Your task to perform on an android device: Add logitech g pro to the cart on ebay, then select checkout. Image 0: 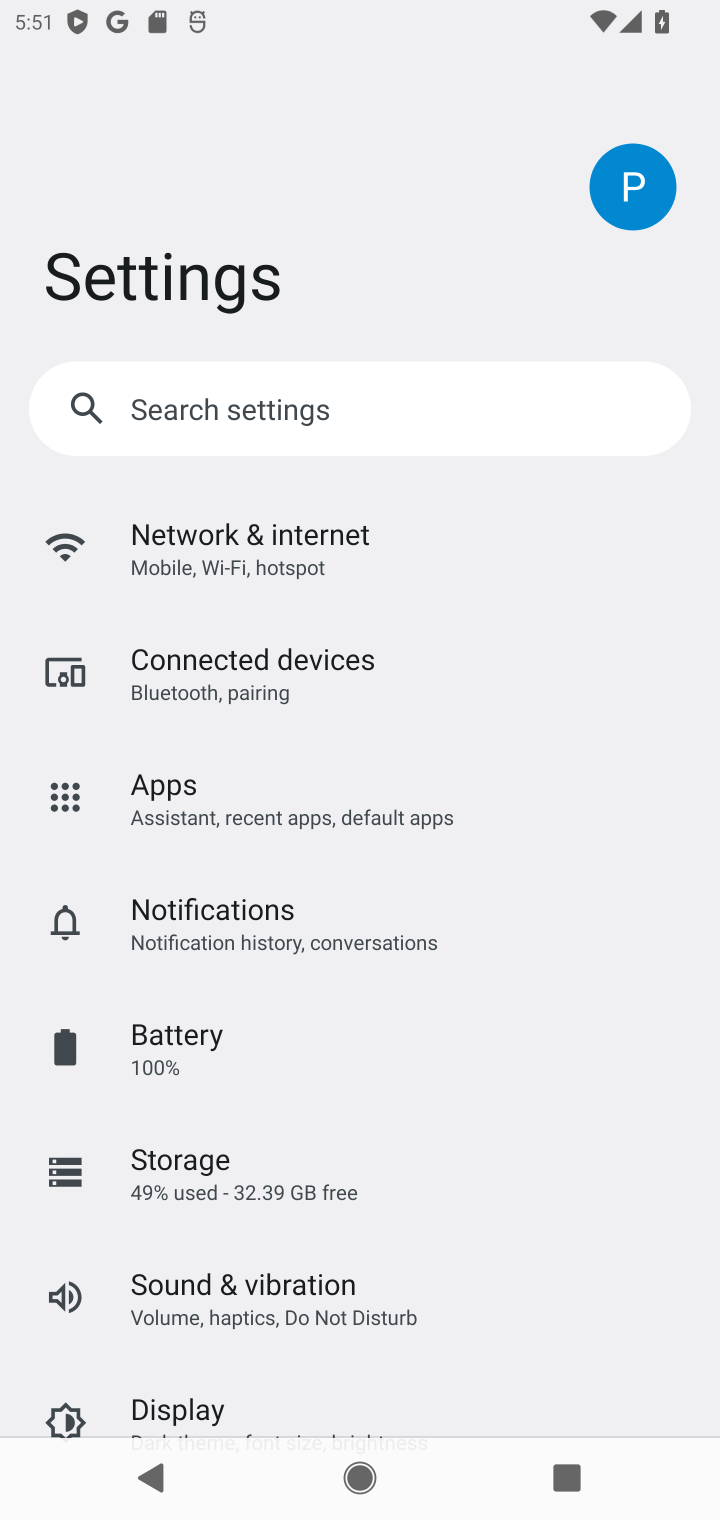
Step 0: press home button
Your task to perform on an android device: Add logitech g pro to the cart on ebay, then select checkout. Image 1: 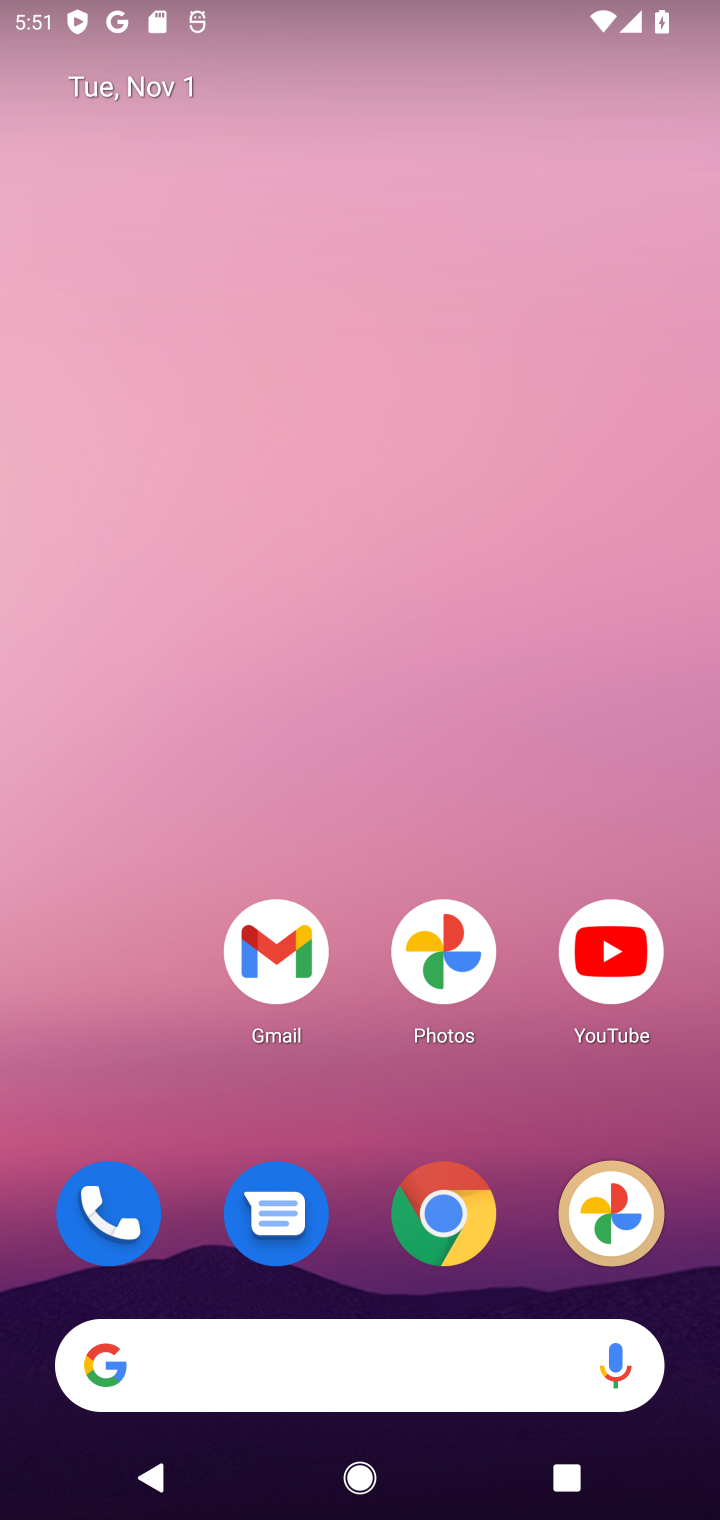
Step 1: click (450, 1223)
Your task to perform on an android device: Add logitech g pro to the cart on ebay, then select checkout. Image 2: 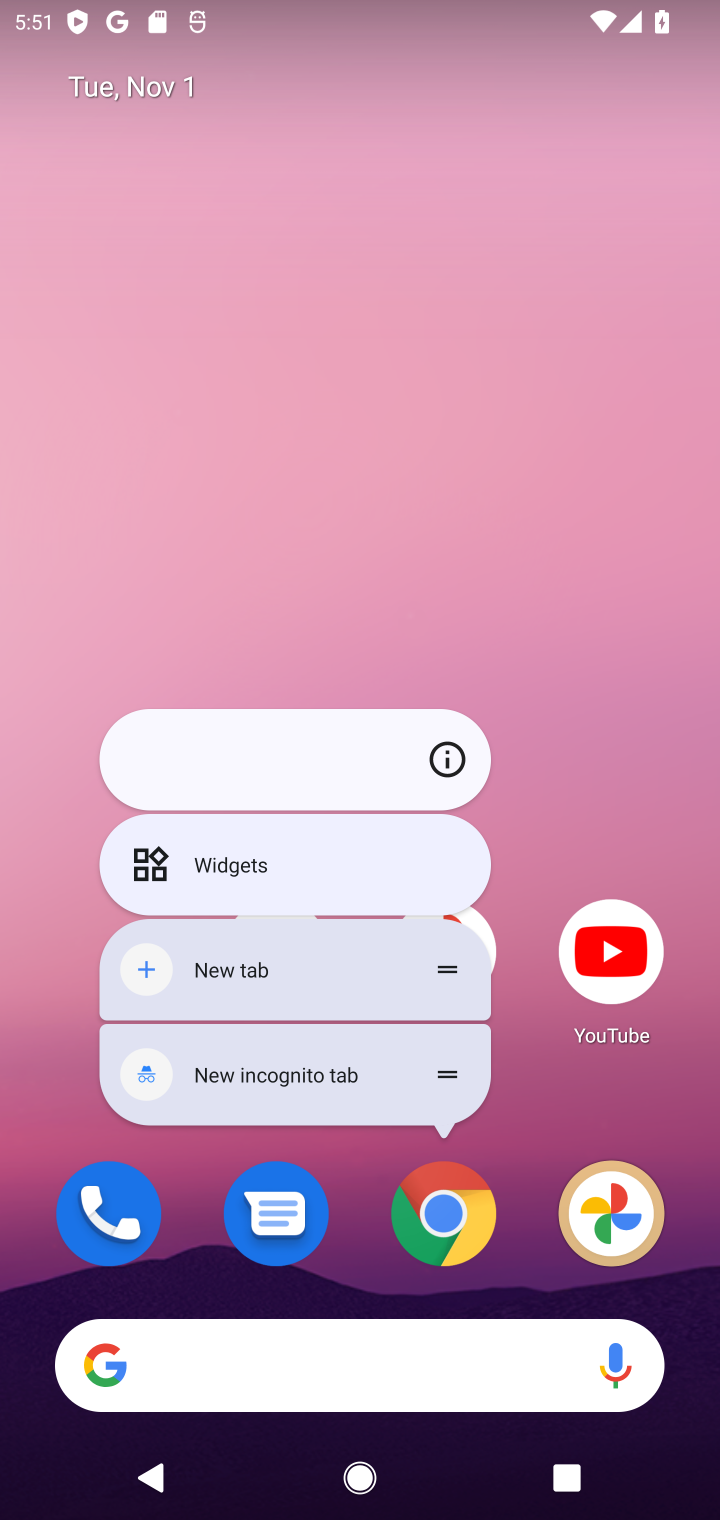
Step 2: click (440, 1249)
Your task to perform on an android device: Add logitech g pro to the cart on ebay, then select checkout. Image 3: 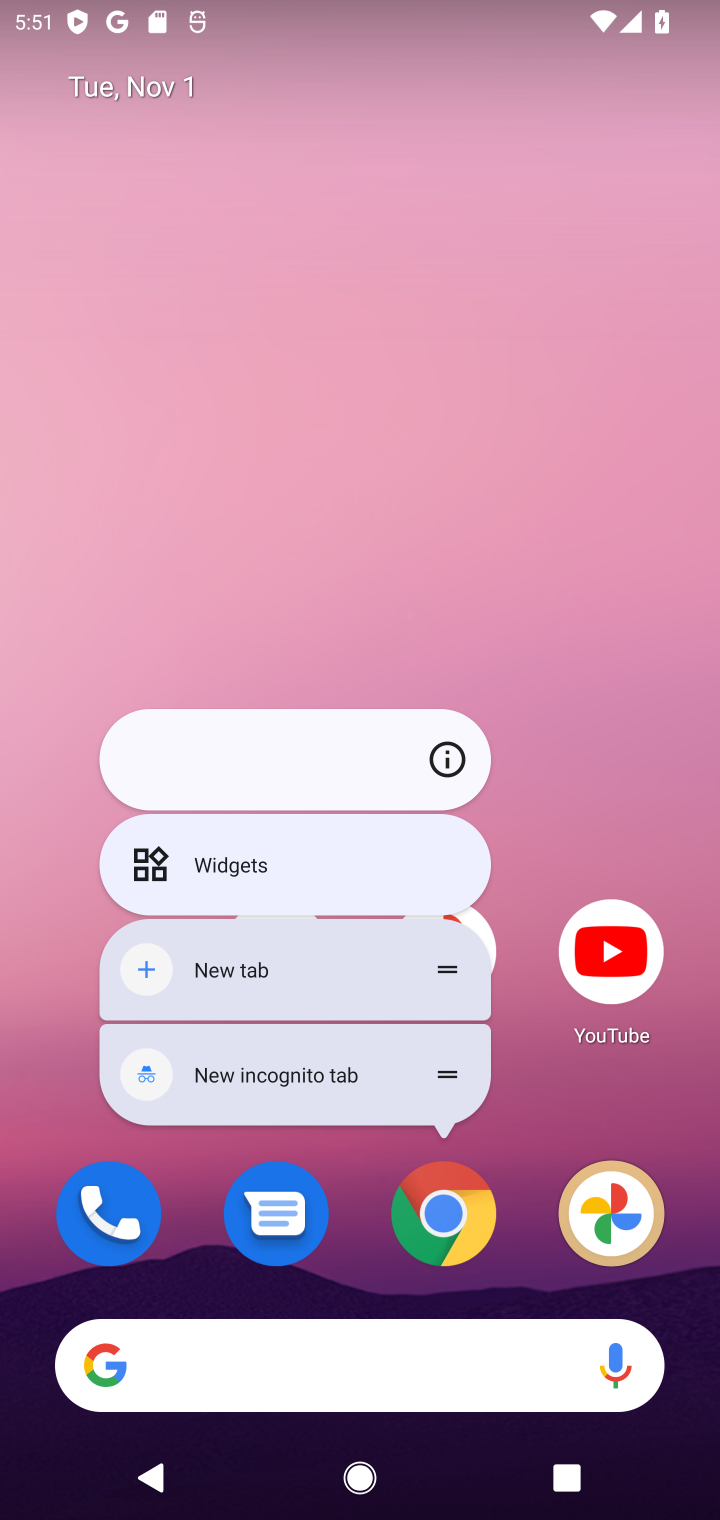
Step 3: click (440, 1256)
Your task to perform on an android device: Add logitech g pro to the cart on ebay, then select checkout. Image 4: 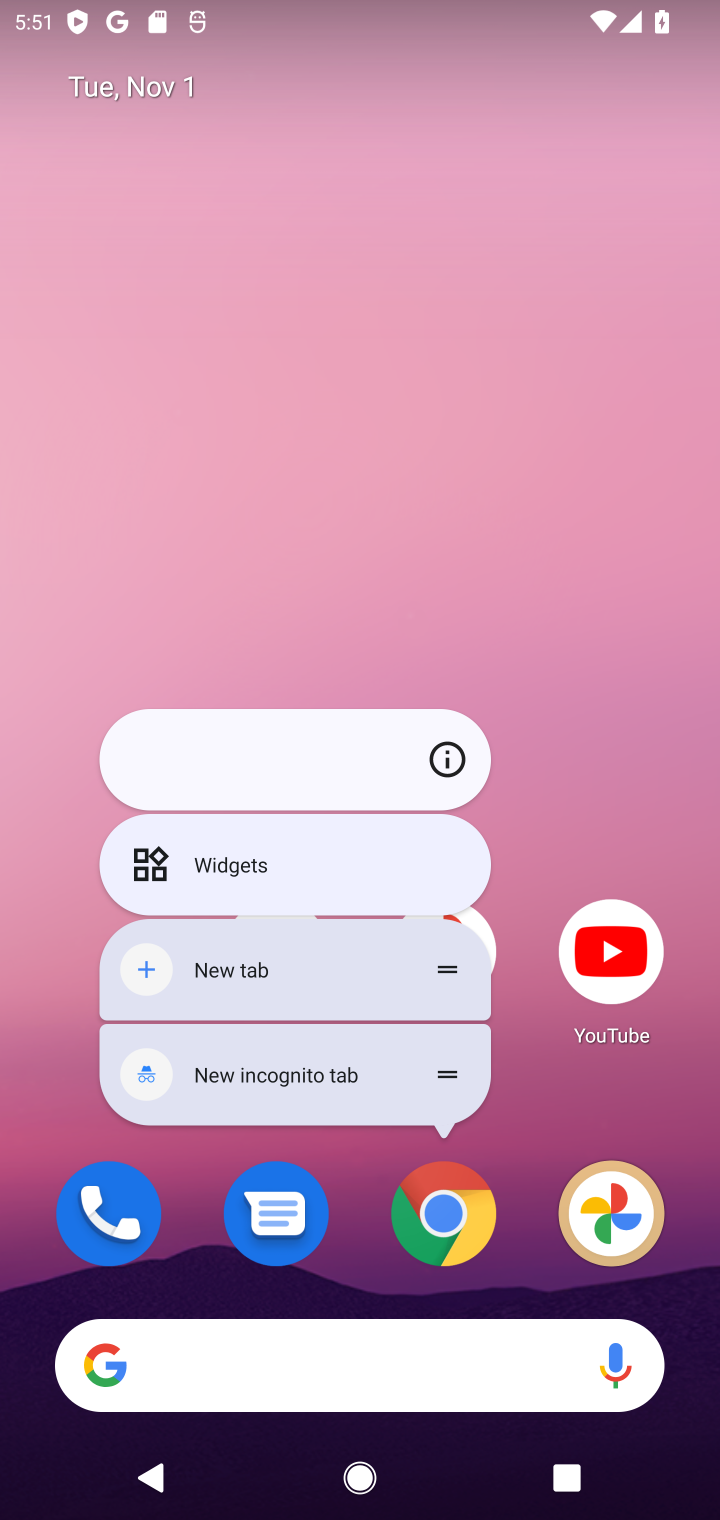
Step 4: click (460, 1248)
Your task to perform on an android device: Add logitech g pro to the cart on ebay, then select checkout. Image 5: 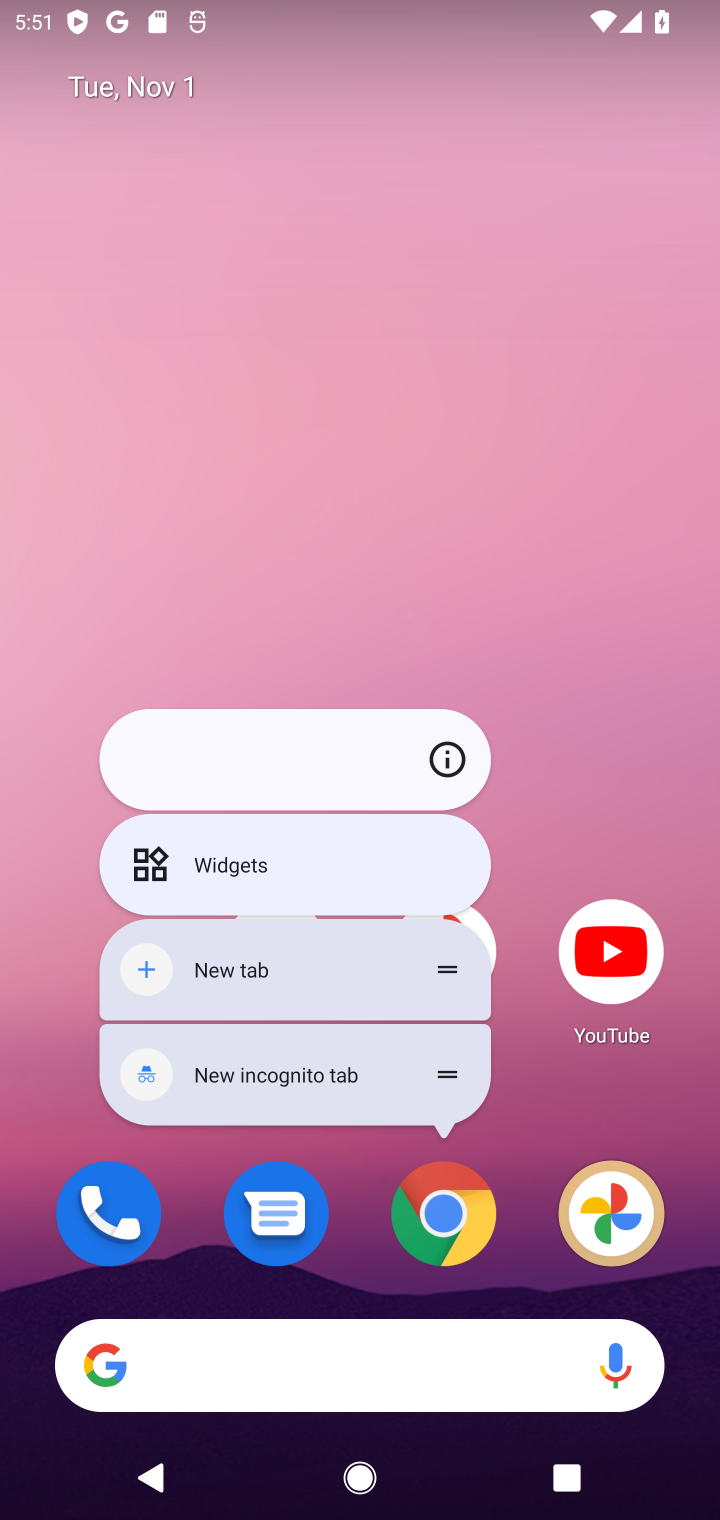
Step 5: click (450, 1256)
Your task to perform on an android device: Add logitech g pro to the cart on ebay, then select checkout. Image 6: 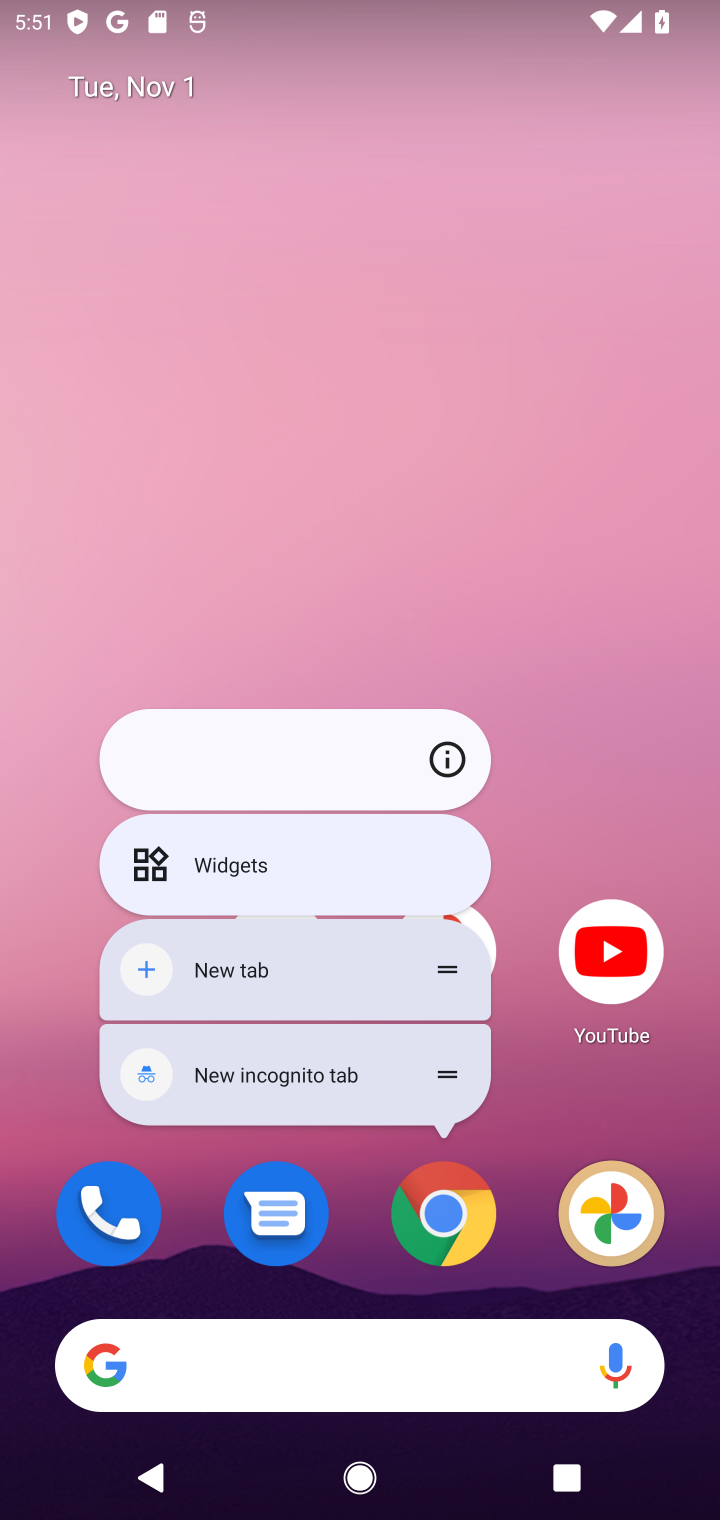
Step 6: click (447, 1225)
Your task to perform on an android device: Add logitech g pro to the cart on ebay, then select checkout. Image 7: 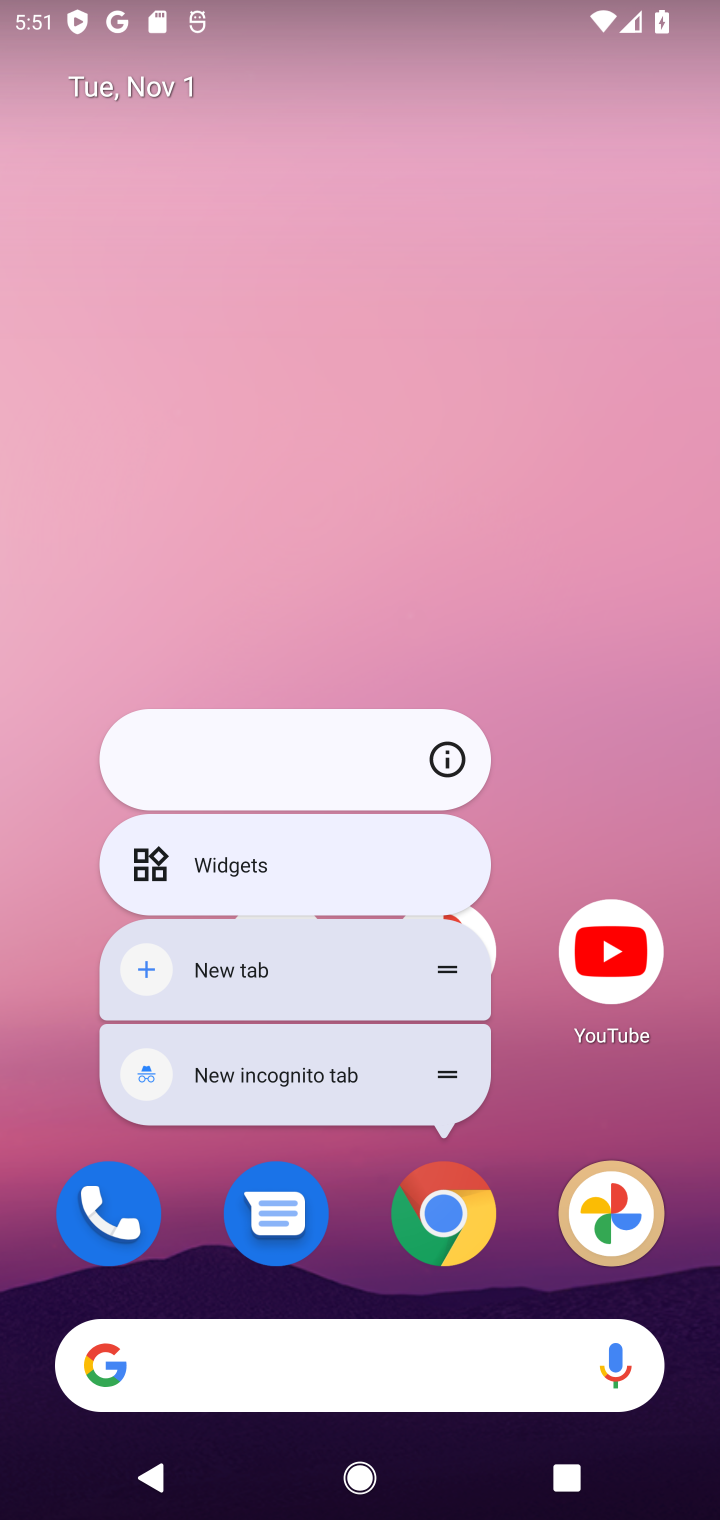
Step 7: click (447, 1217)
Your task to perform on an android device: Add logitech g pro to the cart on ebay, then select checkout. Image 8: 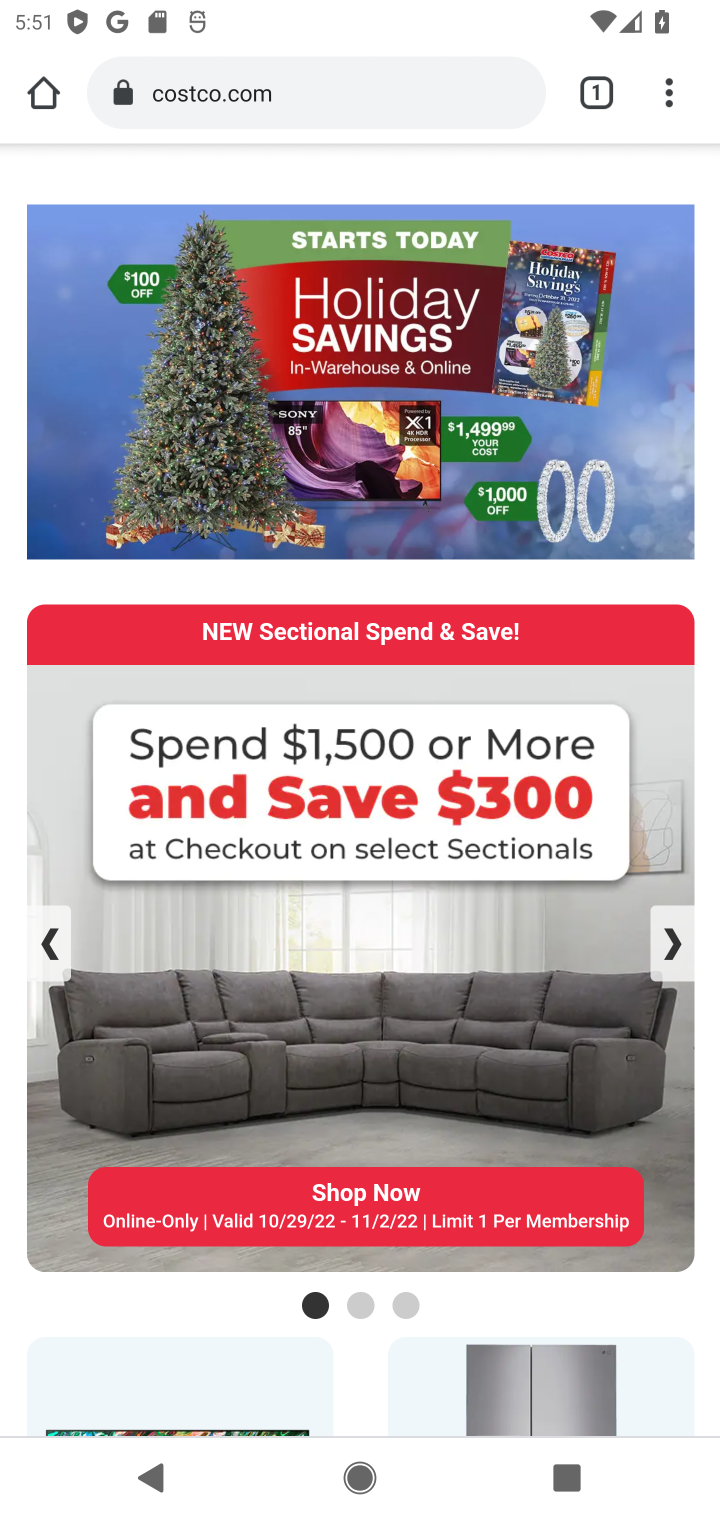
Step 8: click (389, 92)
Your task to perform on an android device: Add logitech g pro to the cart on ebay, then select checkout. Image 9: 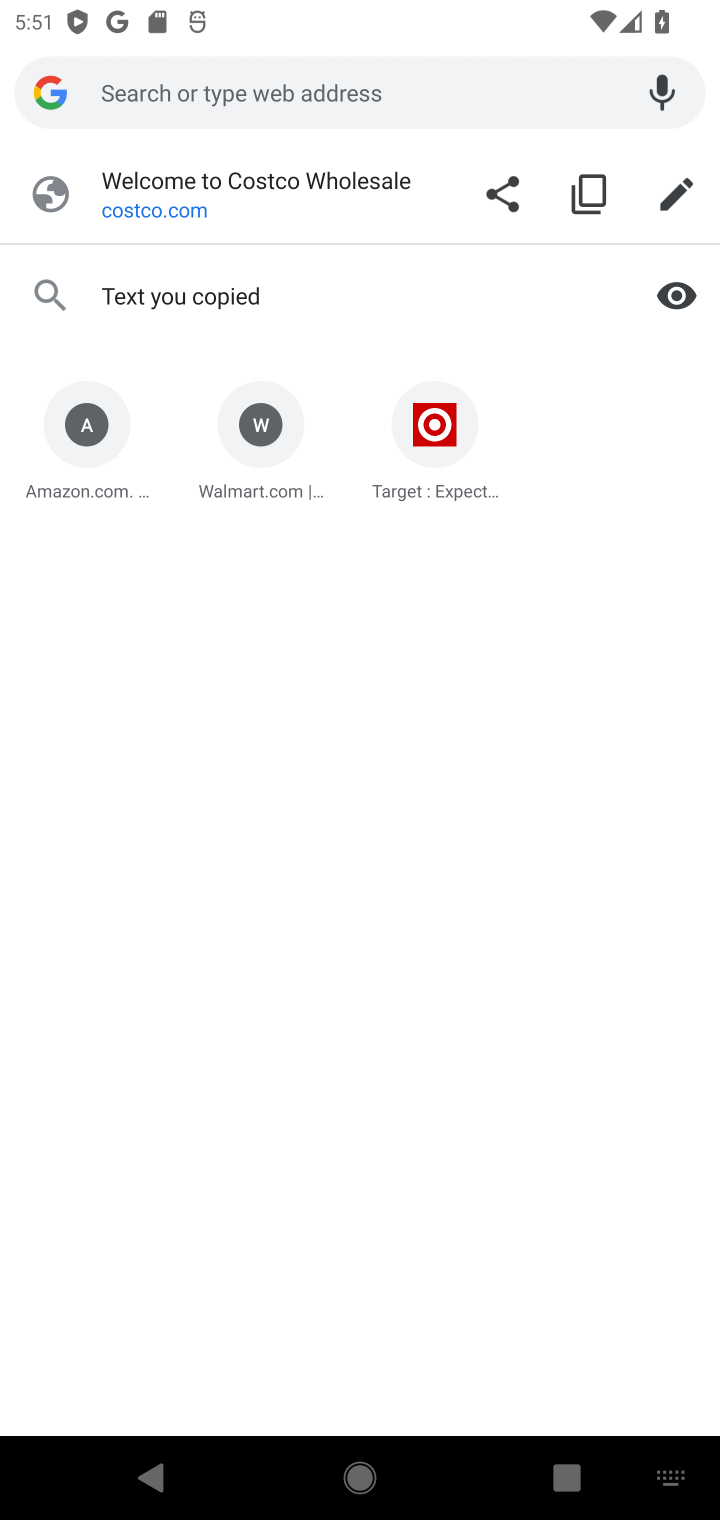
Step 9: type " ebay"
Your task to perform on an android device: Add logitech g pro to the cart on ebay, then select checkout. Image 10: 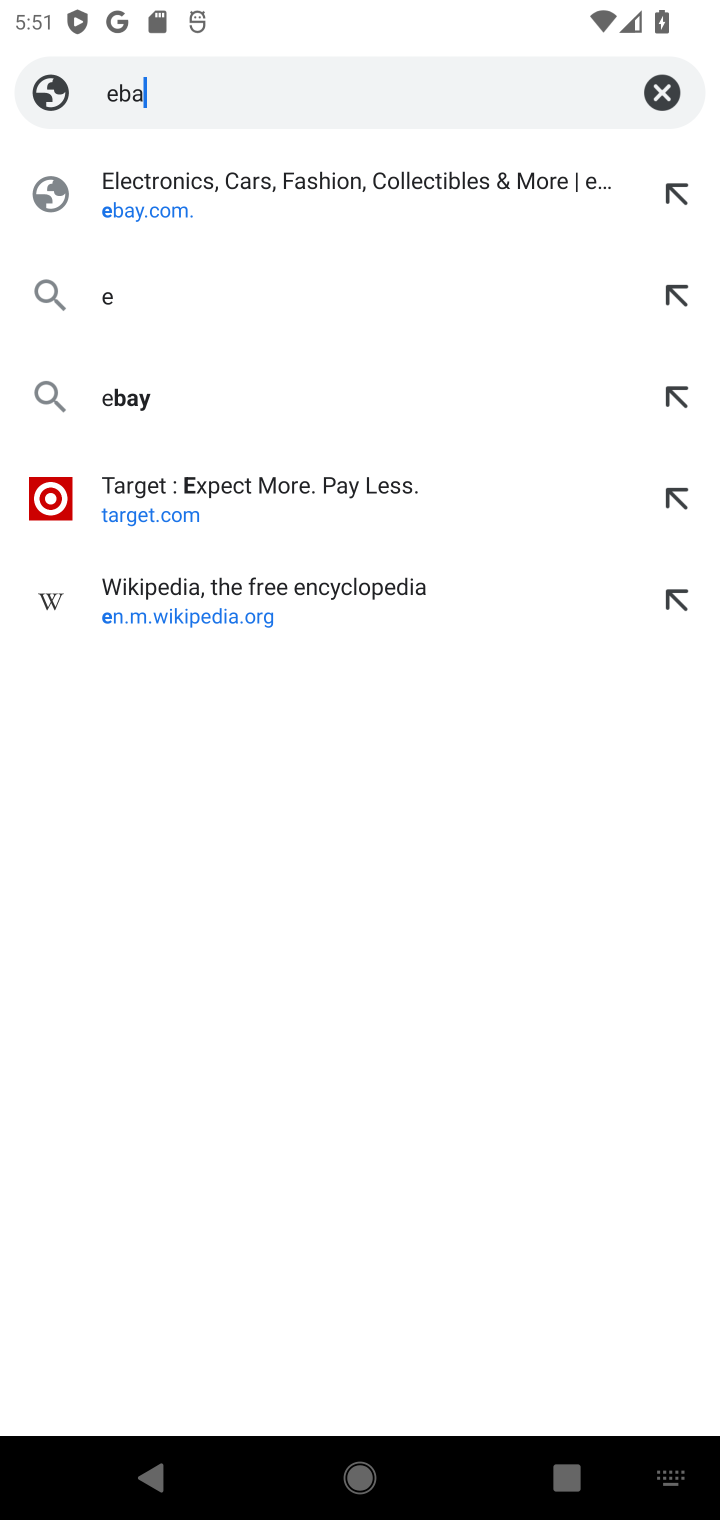
Step 10: type ""
Your task to perform on an android device: Add logitech g pro to the cart on ebay, then select checkout. Image 11: 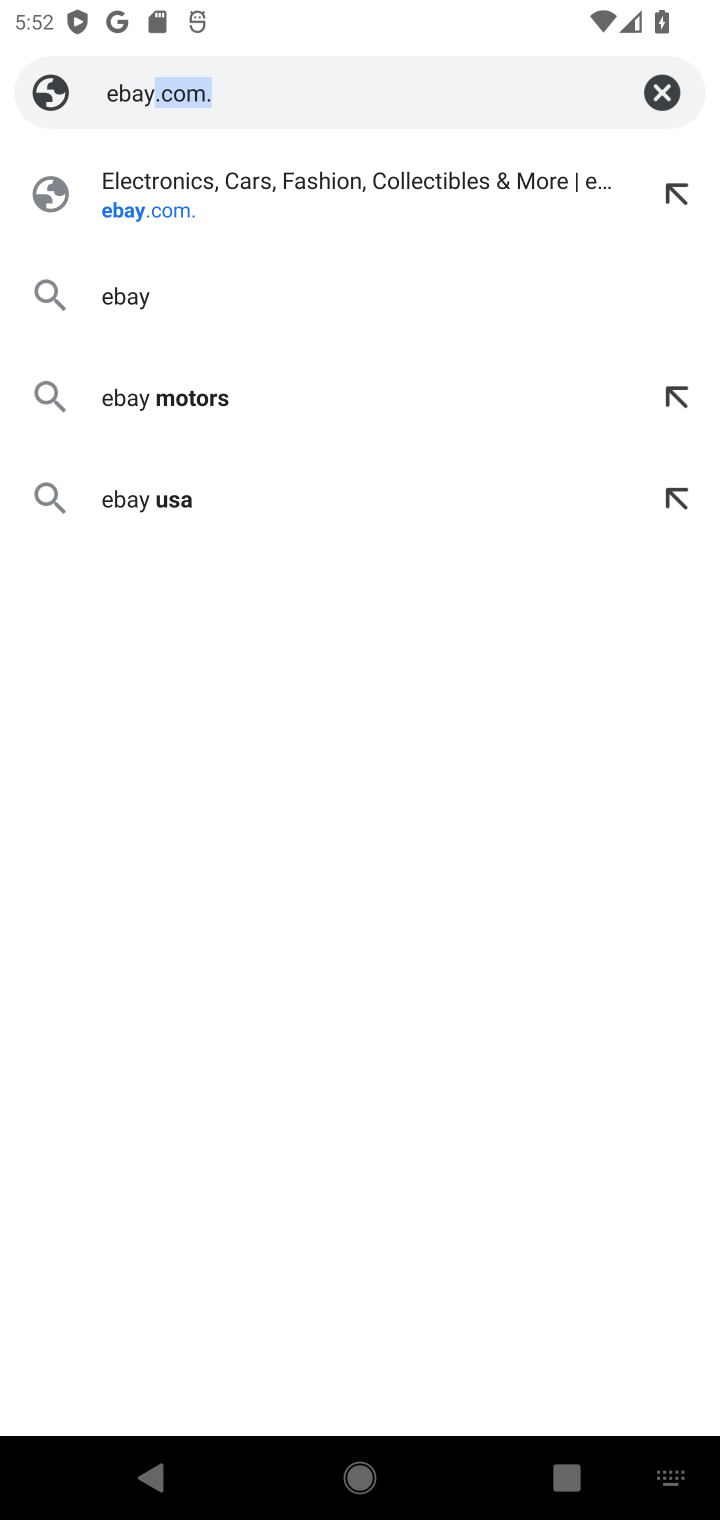
Step 11: click (357, 189)
Your task to perform on an android device: Add logitech g pro to the cart on ebay, then select checkout. Image 12: 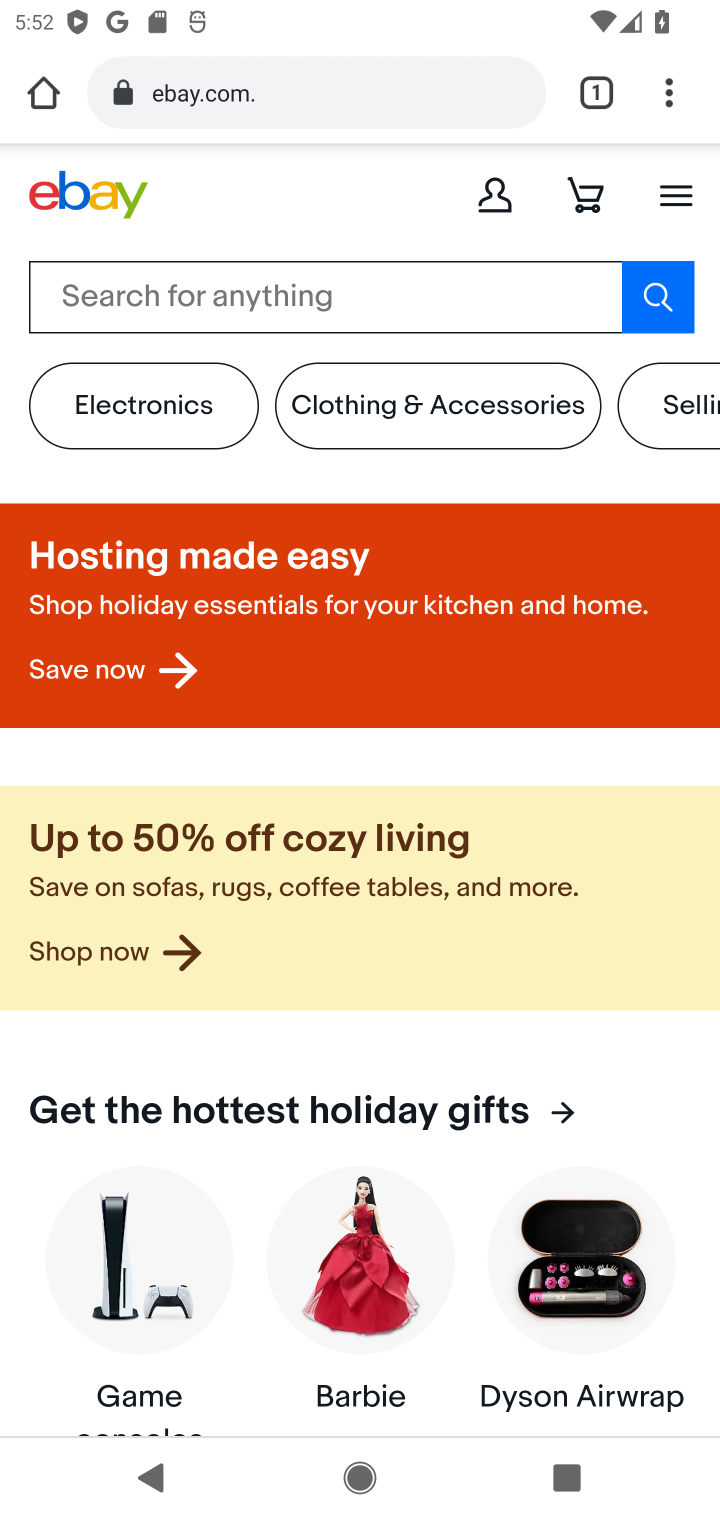
Step 12: click (307, 287)
Your task to perform on an android device: Add logitech g pro to the cart on ebay, then select checkout. Image 13: 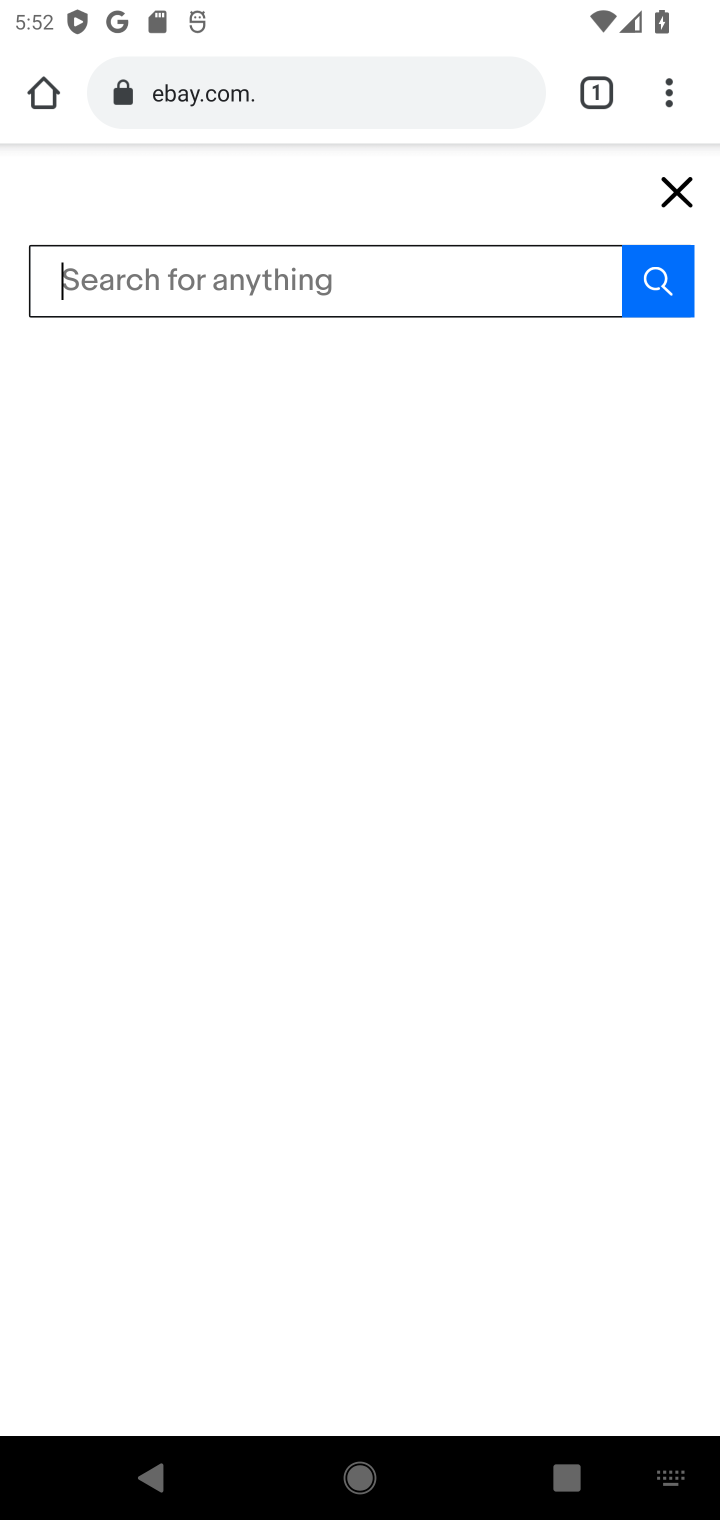
Step 13: type " logitech g pro "
Your task to perform on an android device: Add logitech g pro to the cart on ebay, then select checkout. Image 14: 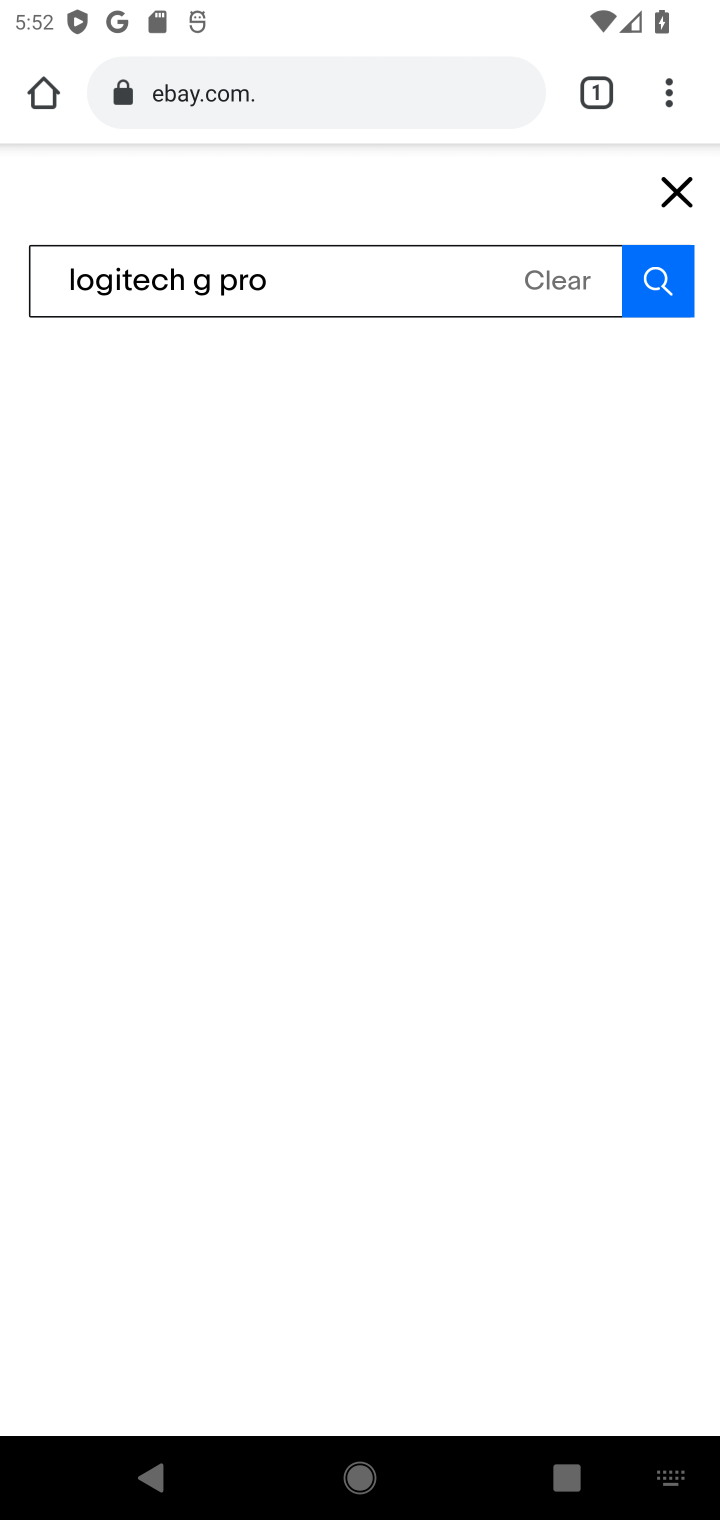
Step 14: click (684, 276)
Your task to perform on an android device: Add logitech g pro to the cart on ebay, then select checkout. Image 15: 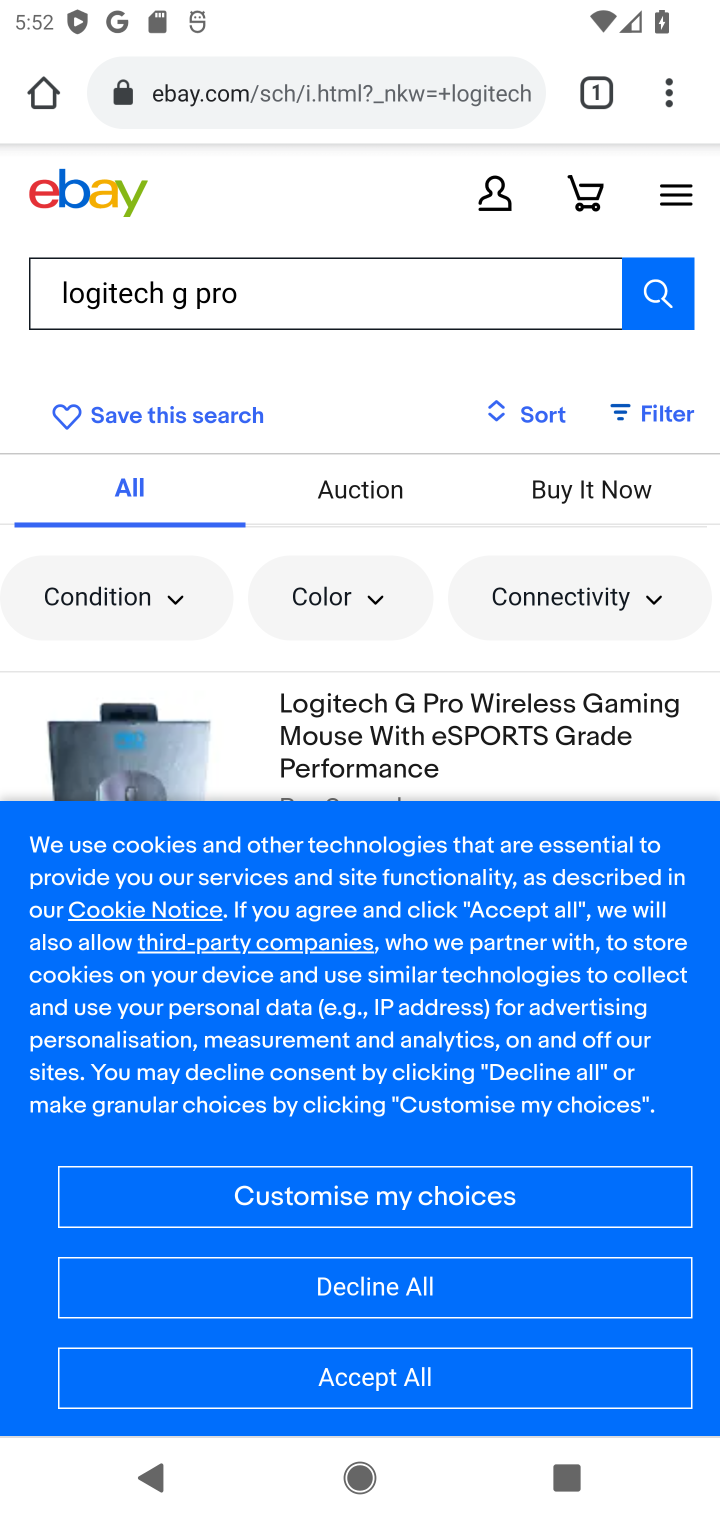
Step 15: click (492, 1391)
Your task to perform on an android device: Add logitech g pro to the cart on ebay, then select checkout. Image 16: 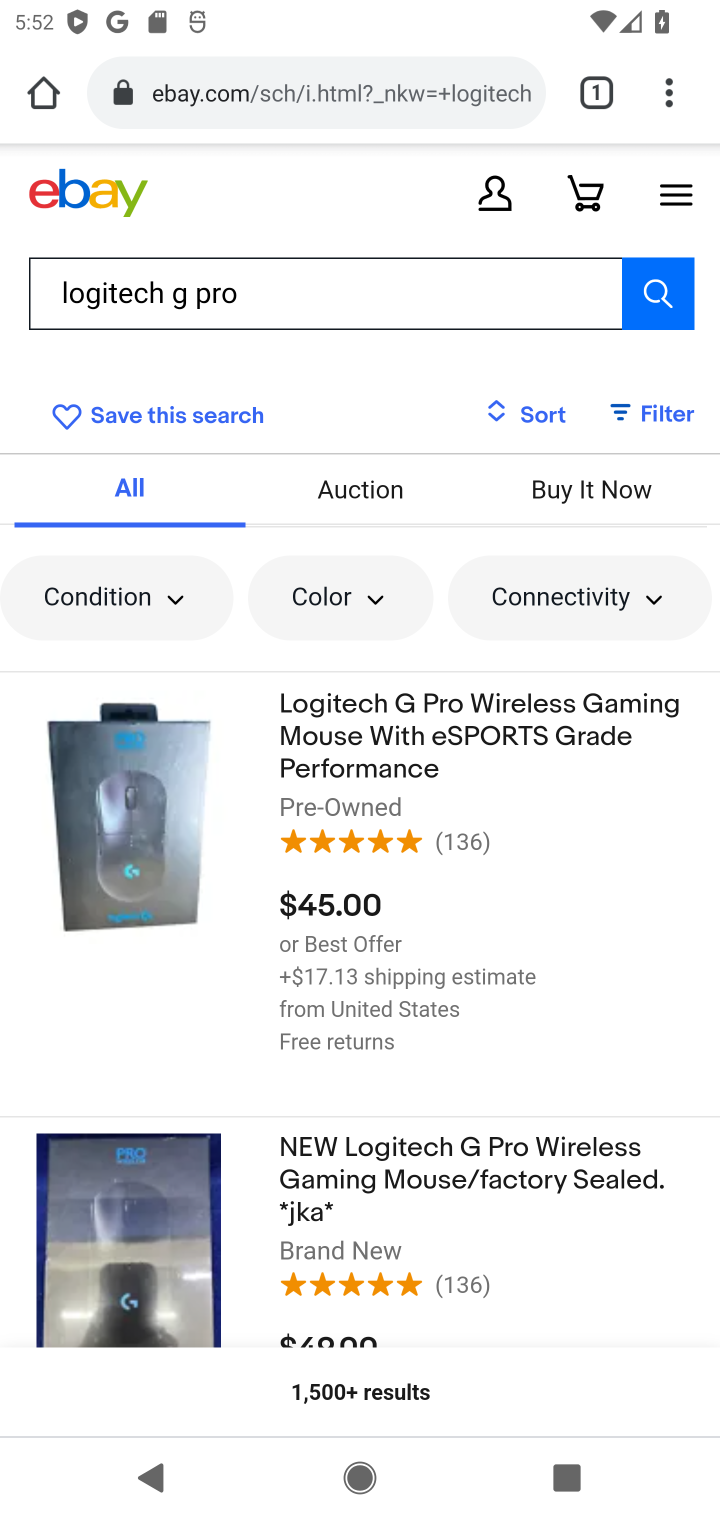
Step 16: click (352, 710)
Your task to perform on an android device: Add logitech g pro to the cart on ebay, then select checkout. Image 17: 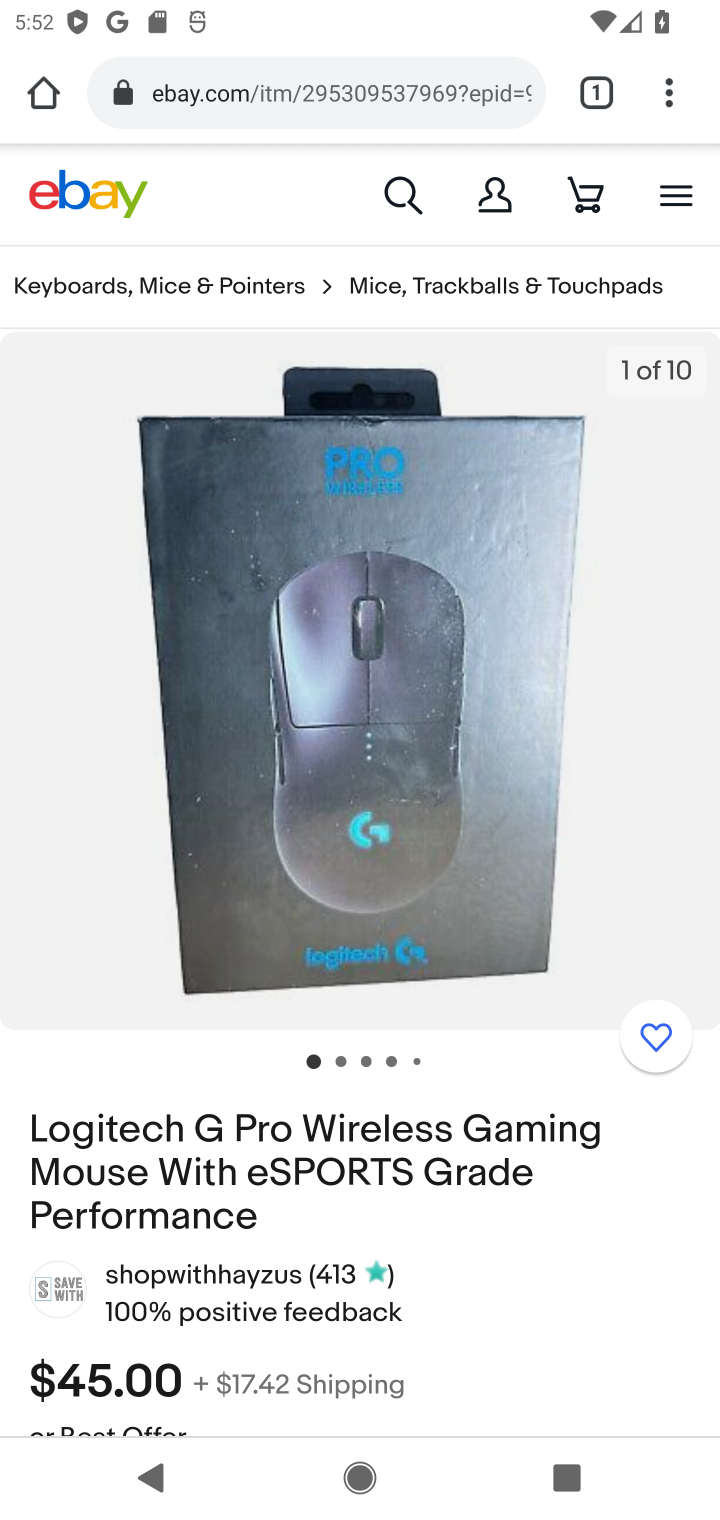
Step 17: drag from (360, 496) to (353, 347)
Your task to perform on an android device: Add logitech g pro to the cart on ebay, then select checkout. Image 18: 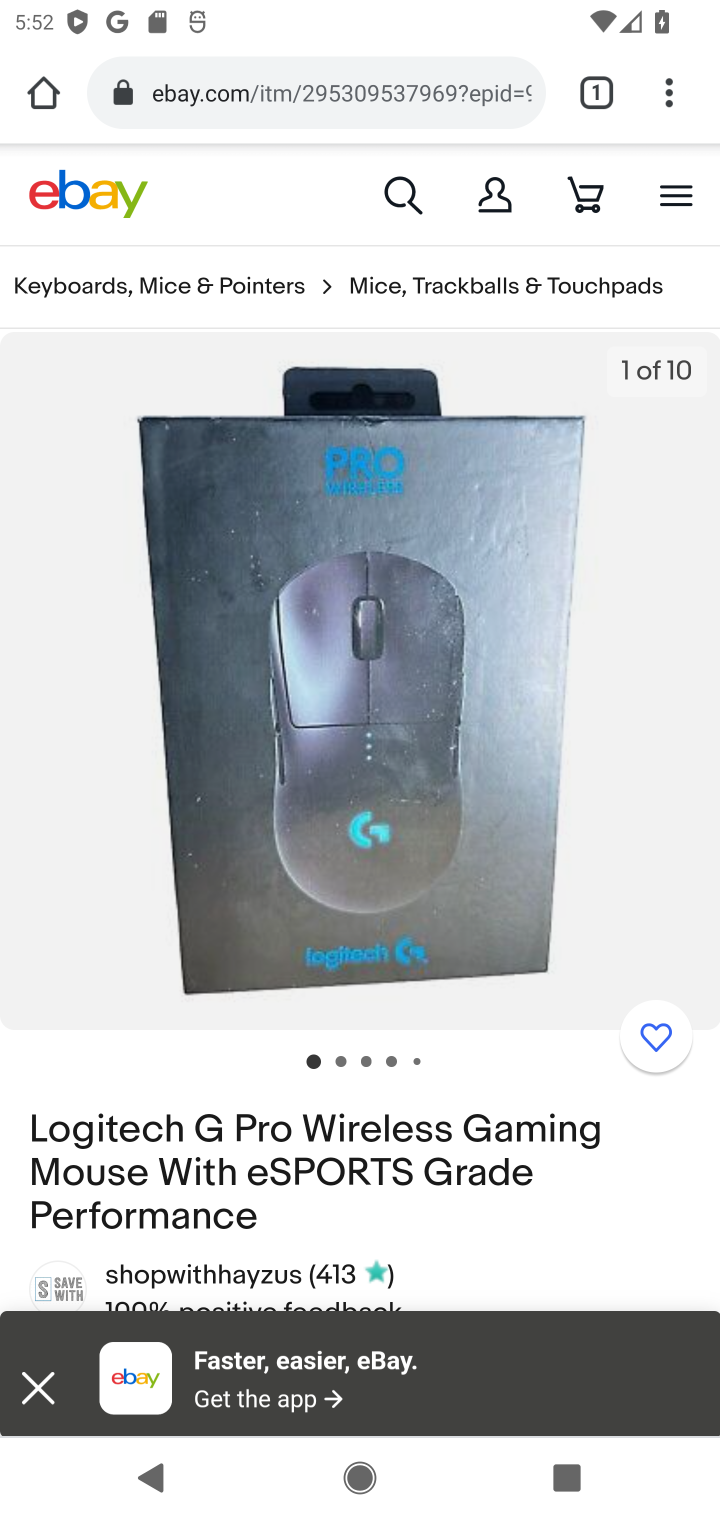
Step 18: click (346, 490)
Your task to perform on an android device: Add logitech g pro to the cart on ebay, then select checkout. Image 19: 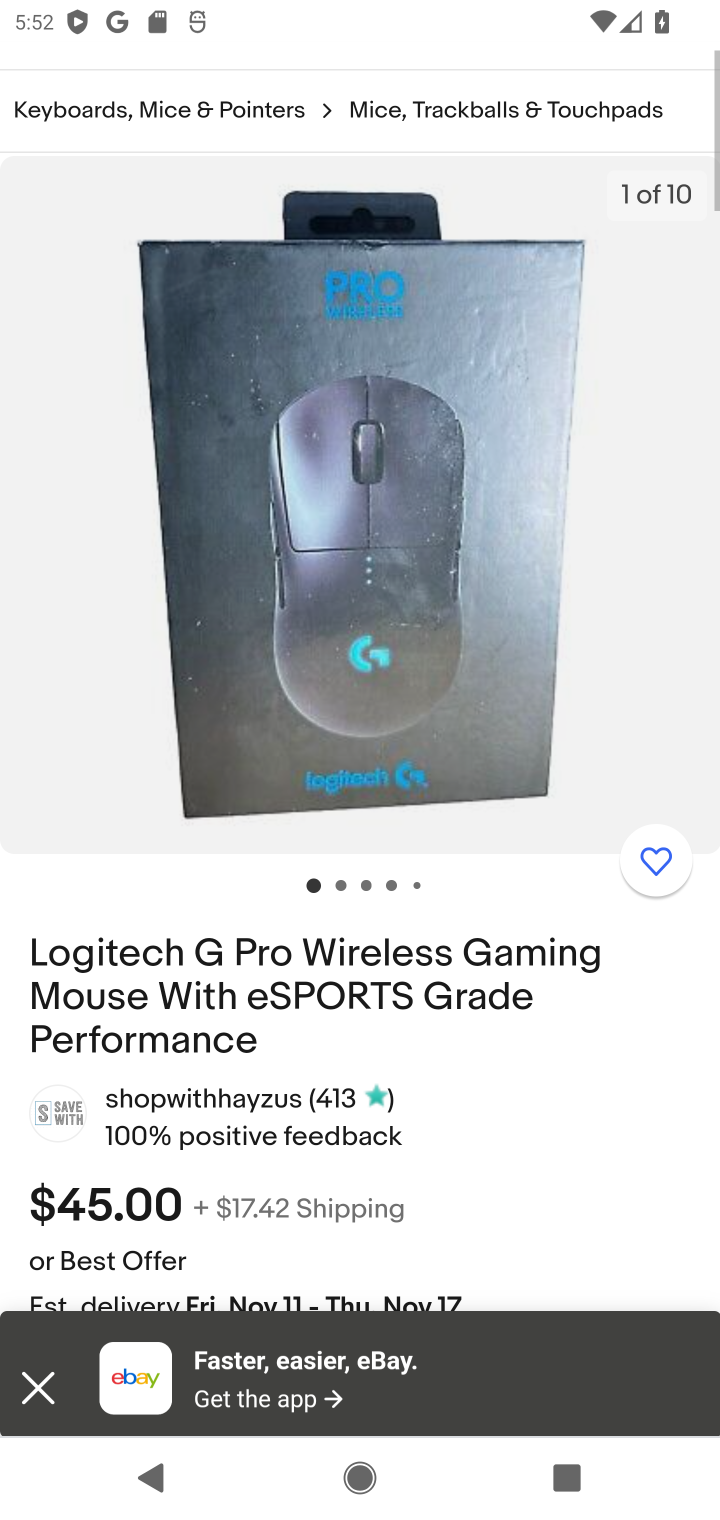
Step 19: click (51, 1408)
Your task to perform on an android device: Add logitech g pro to the cart on ebay, then select checkout. Image 20: 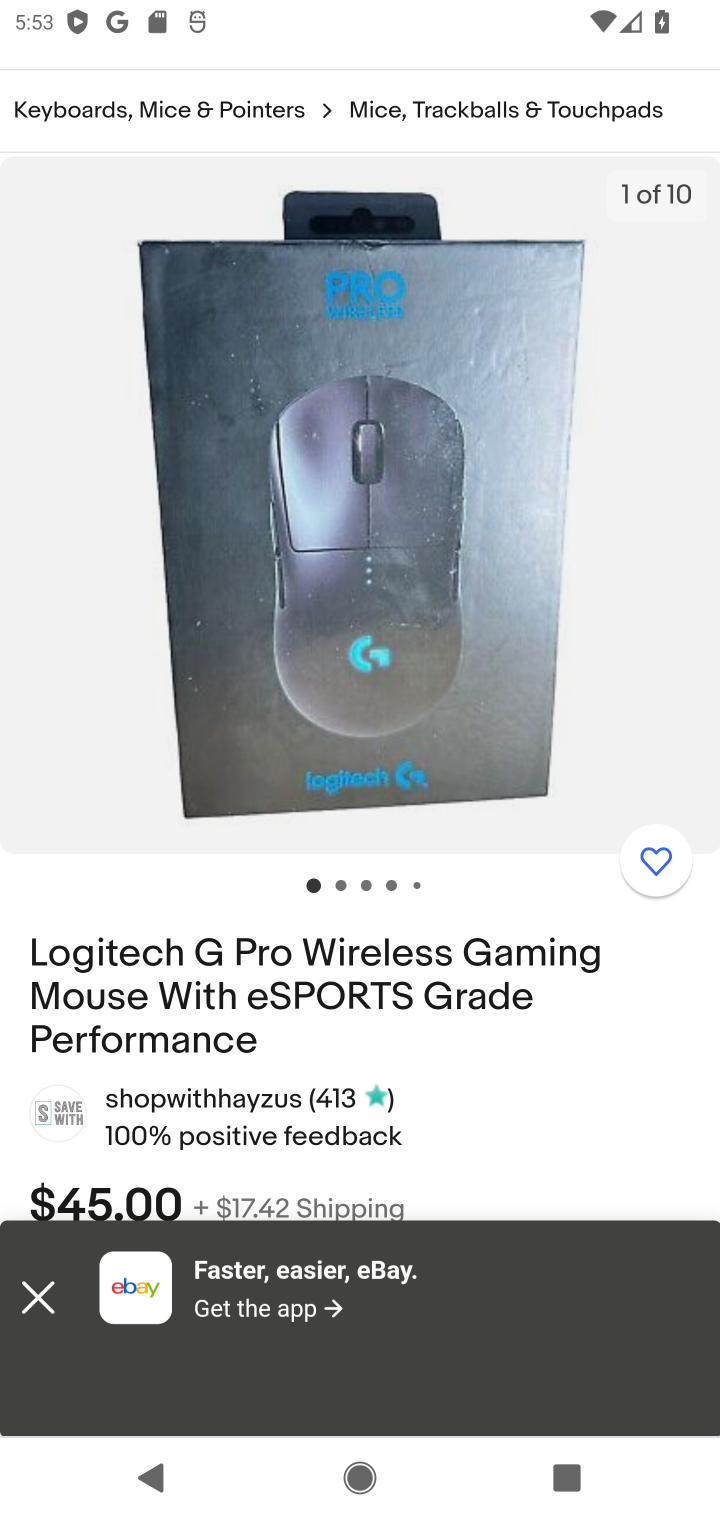
Step 20: click (49, 1280)
Your task to perform on an android device: Add logitech g pro to the cart on ebay, then select checkout. Image 21: 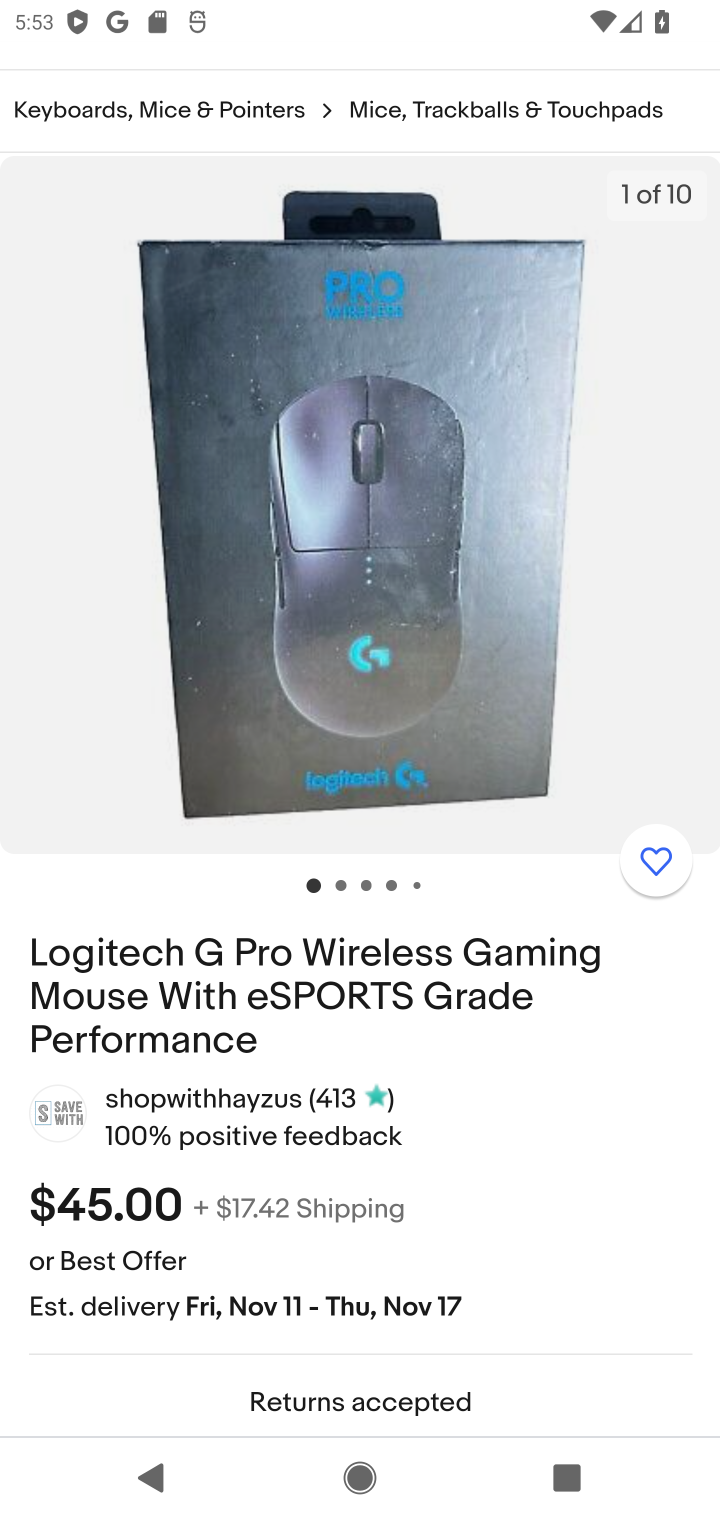
Step 21: drag from (392, 1152) to (420, 402)
Your task to perform on an android device: Add logitech g pro to the cart on ebay, then select checkout. Image 22: 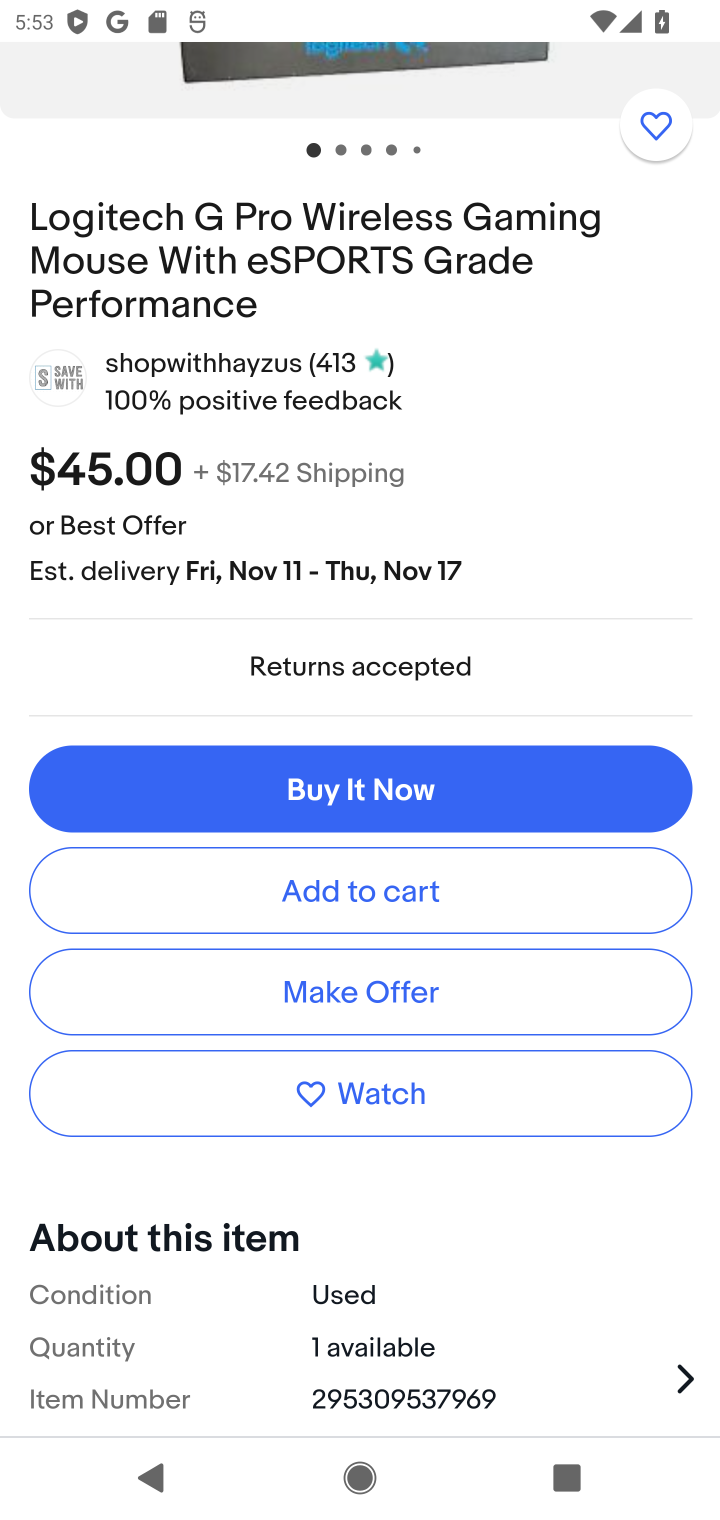
Step 22: click (410, 817)
Your task to perform on an android device: Add logitech g pro to the cart on ebay, then select checkout. Image 23: 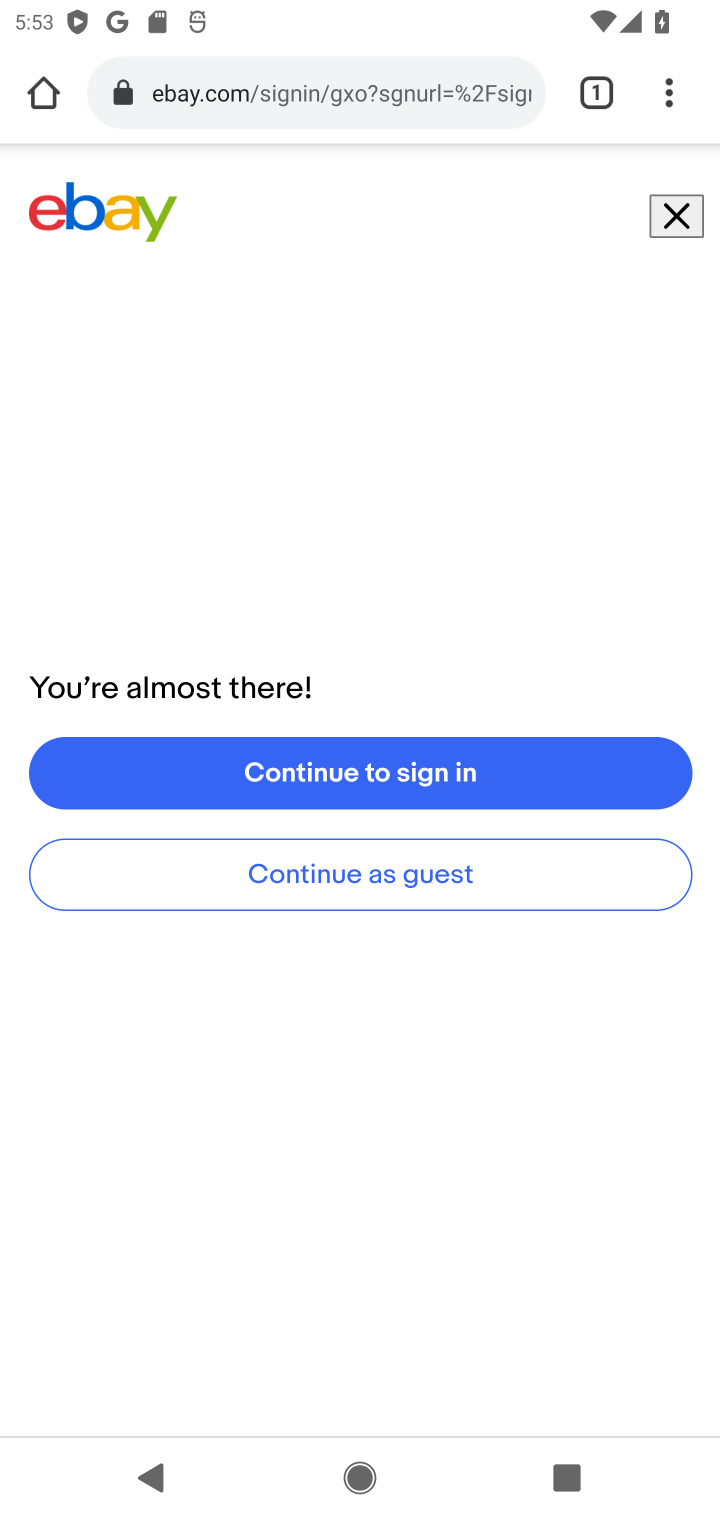
Step 23: click (391, 867)
Your task to perform on an android device: Add logitech g pro to the cart on ebay, then select checkout. Image 24: 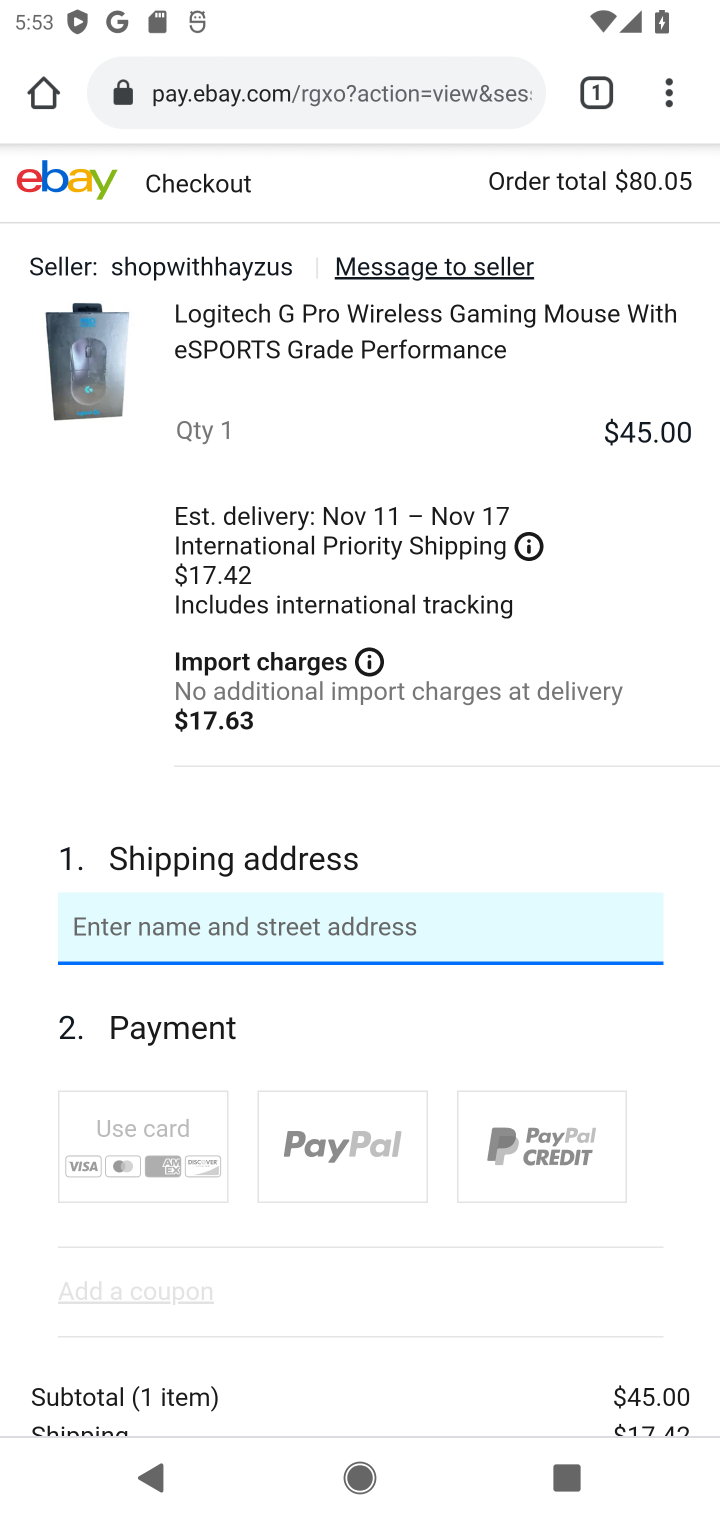
Step 24: drag from (402, 1177) to (369, 439)
Your task to perform on an android device: Add logitech g pro to the cart on ebay, then select checkout. Image 25: 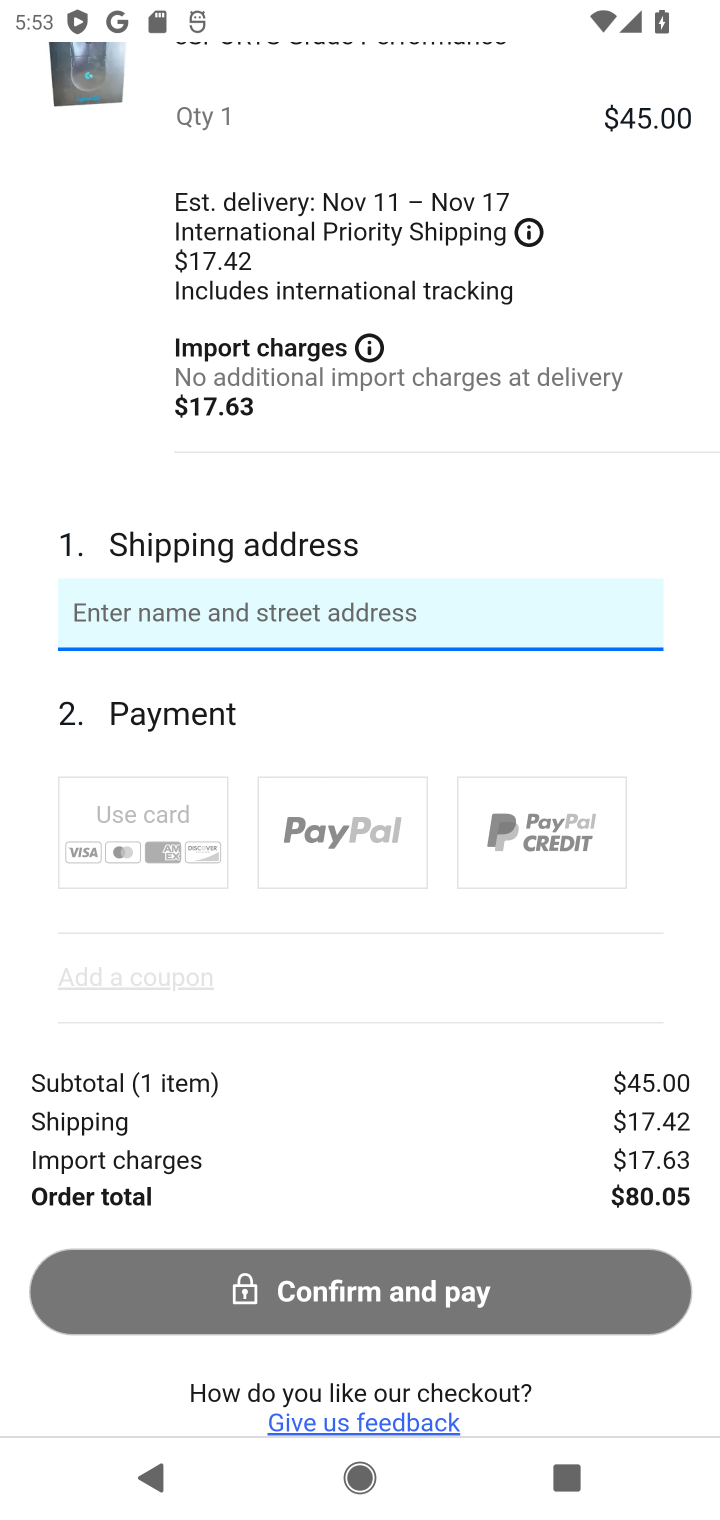
Step 25: click (304, 1324)
Your task to perform on an android device: Add logitech g pro to the cart on ebay, then select checkout. Image 26: 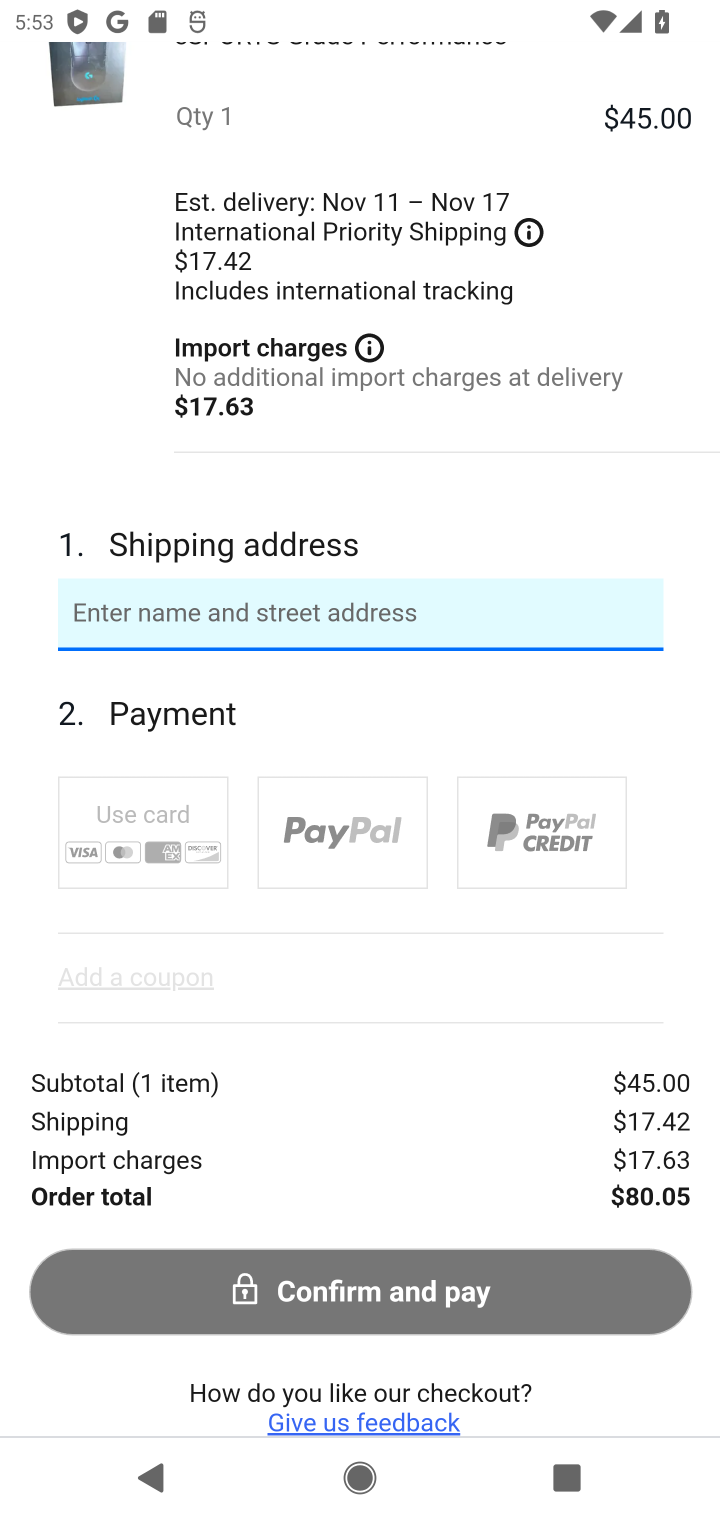
Step 26: drag from (285, 891) to (291, 414)
Your task to perform on an android device: Add logitech g pro to the cart on ebay, then select checkout. Image 27: 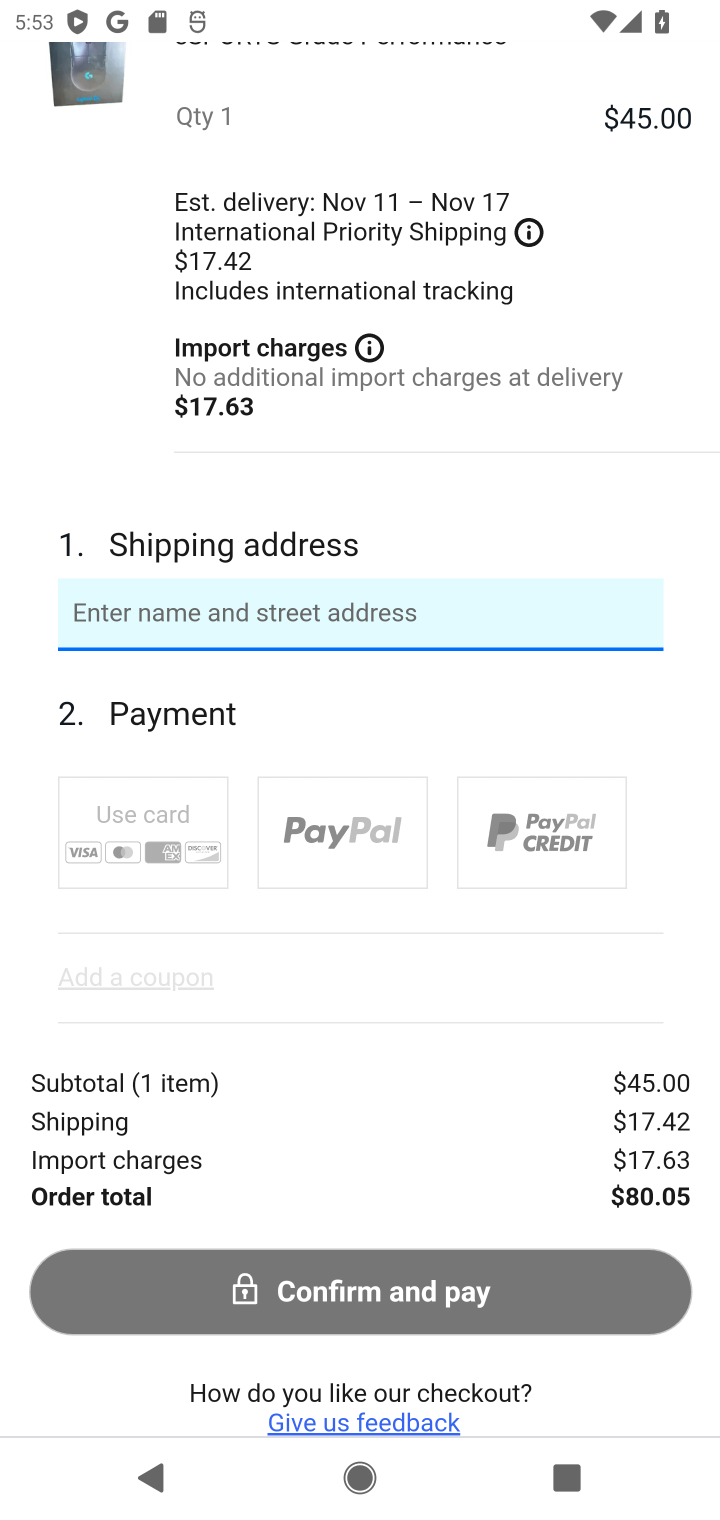
Step 27: drag from (299, 825) to (302, 285)
Your task to perform on an android device: Add logitech g pro to the cart on ebay, then select checkout. Image 28: 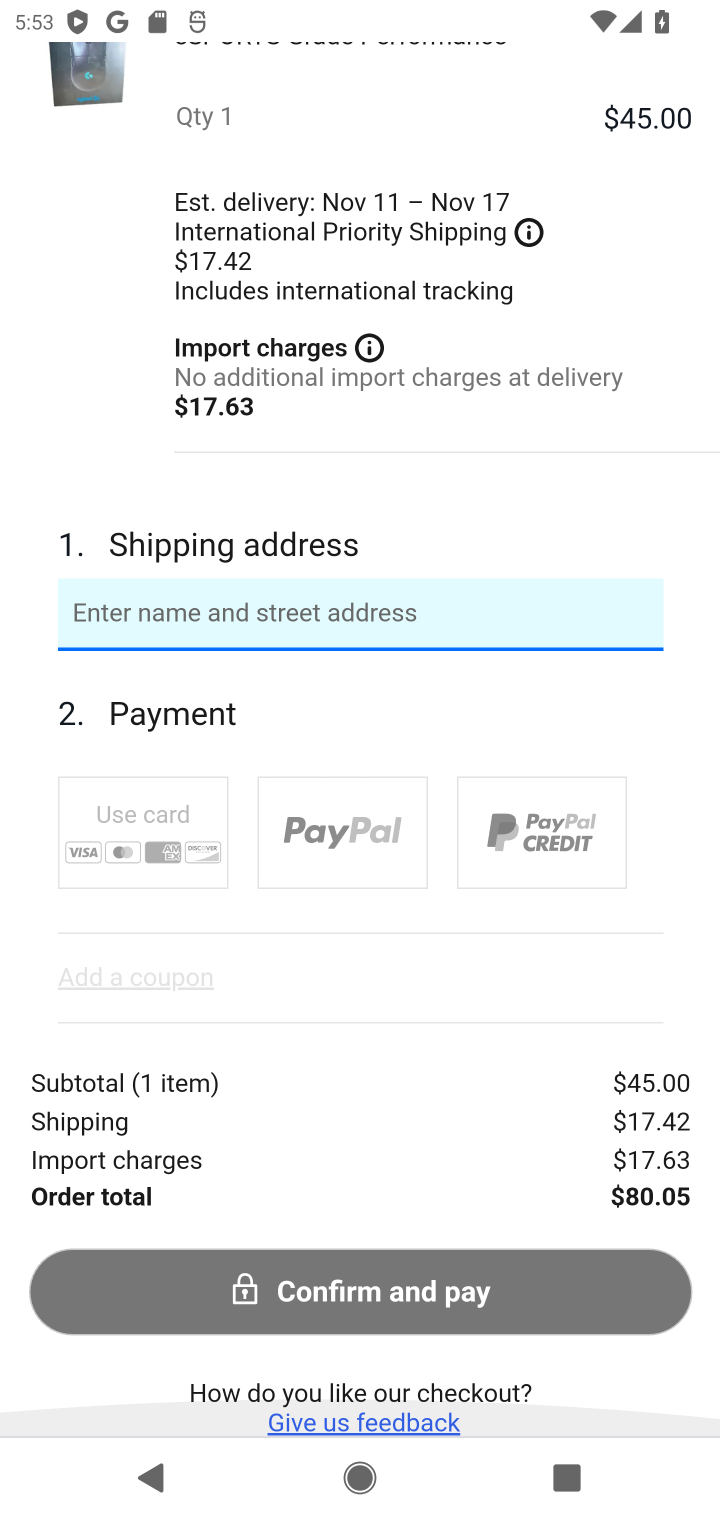
Step 28: click (334, 256)
Your task to perform on an android device: Add logitech g pro to the cart on ebay, then select checkout. Image 29: 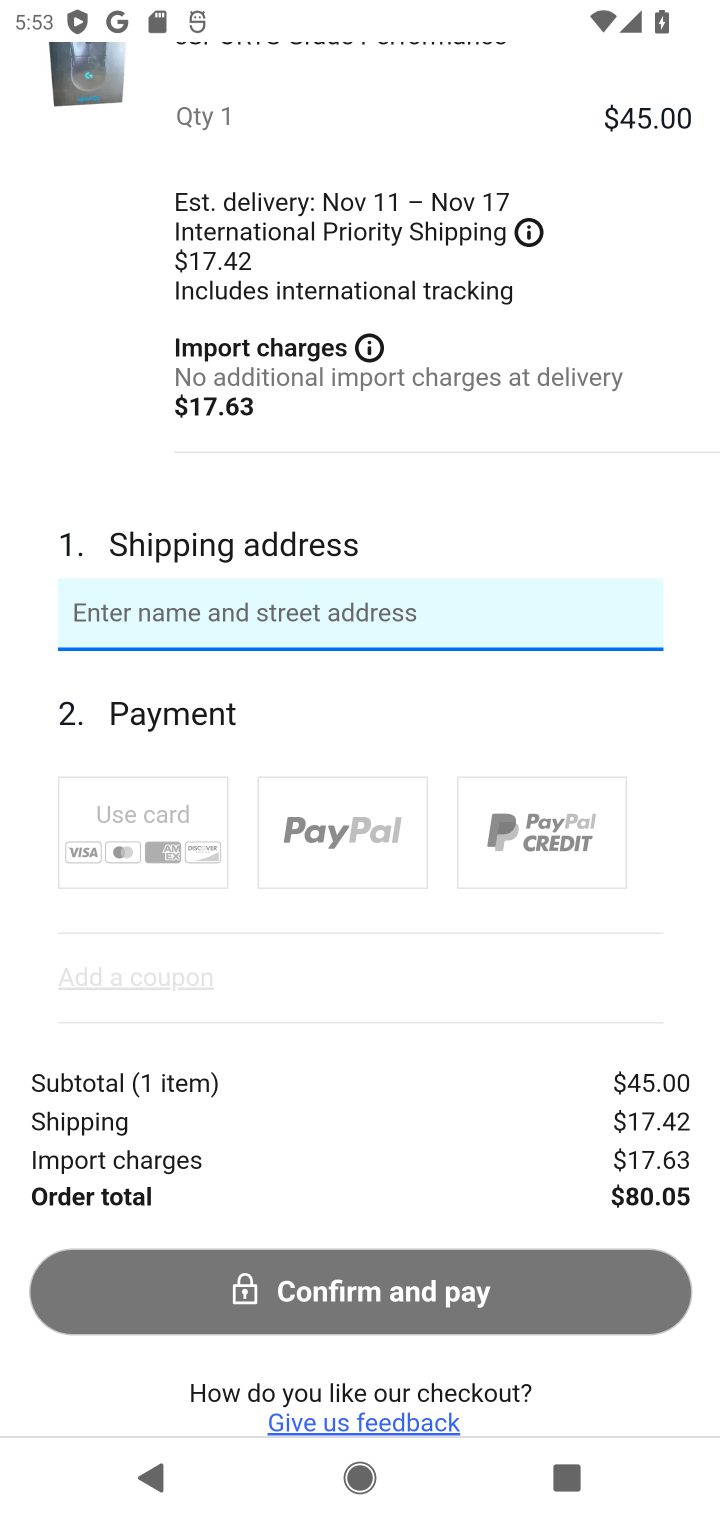
Step 29: task complete